Your task to perform on an android device: clear all cookies in the chrome app Image 0: 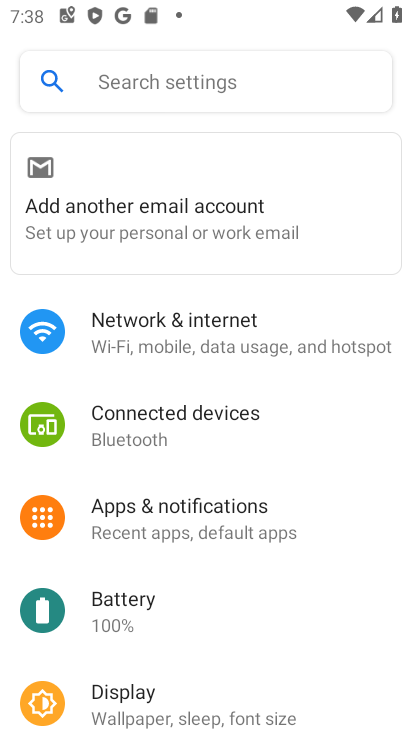
Step 0: press home button
Your task to perform on an android device: clear all cookies in the chrome app Image 1: 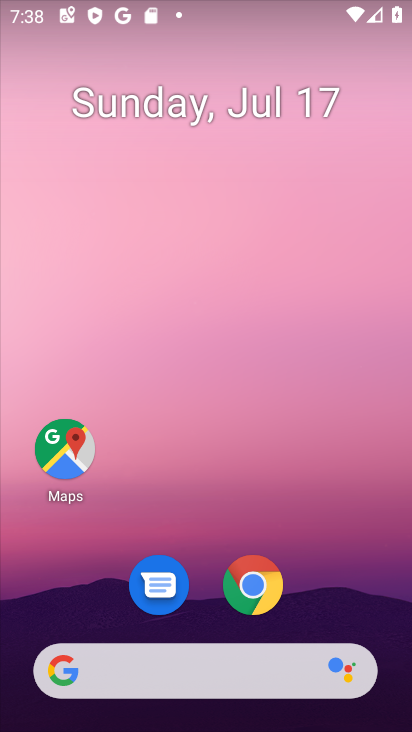
Step 1: click (255, 600)
Your task to perform on an android device: clear all cookies in the chrome app Image 2: 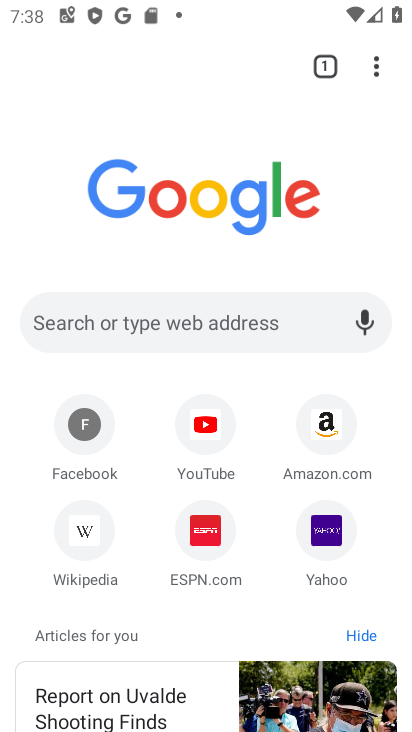
Step 2: click (374, 65)
Your task to perform on an android device: clear all cookies in the chrome app Image 3: 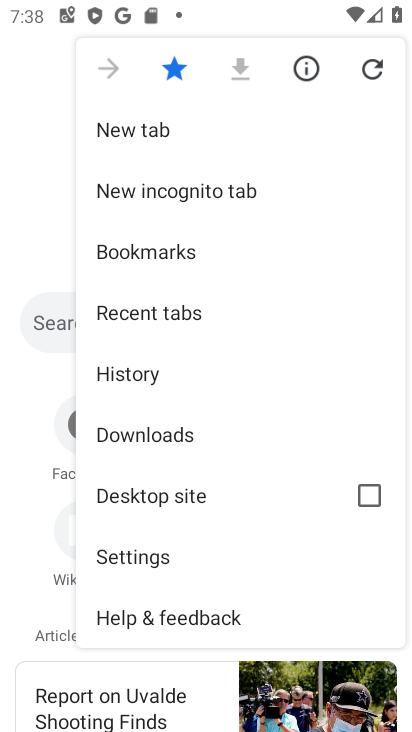
Step 3: click (137, 360)
Your task to perform on an android device: clear all cookies in the chrome app Image 4: 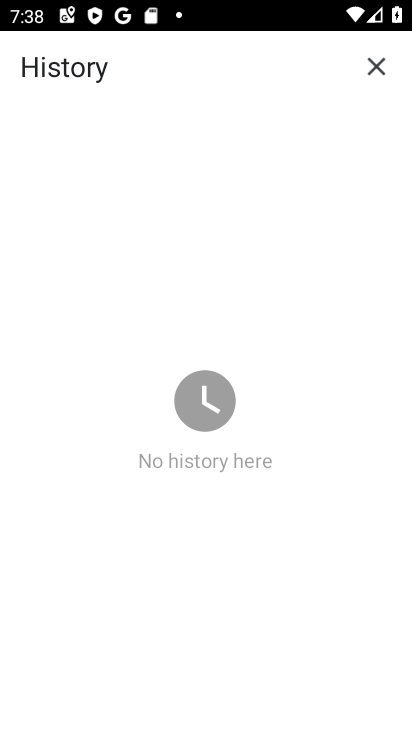
Step 4: click (373, 54)
Your task to perform on an android device: clear all cookies in the chrome app Image 5: 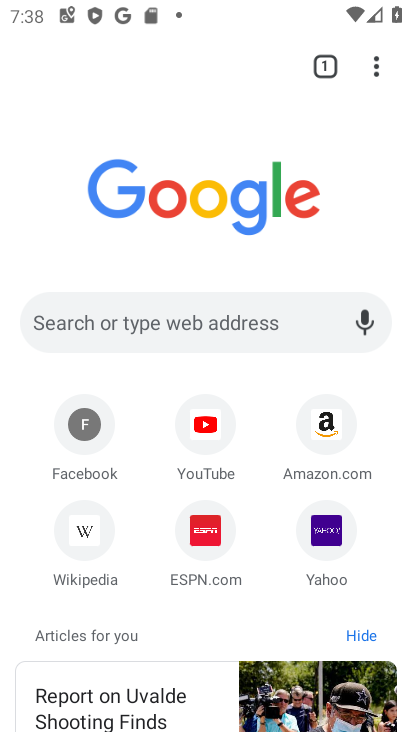
Step 5: click (381, 73)
Your task to perform on an android device: clear all cookies in the chrome app Image 6: 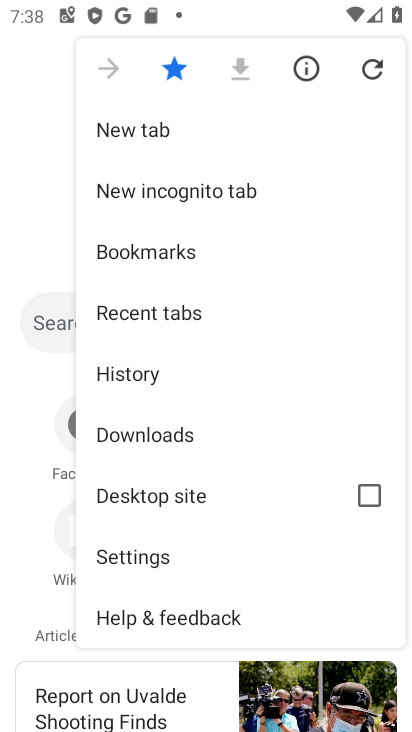
Step 6: click (168, 558)
Your task to perform on an android device: clear all cookies in the chrome app Image 7: 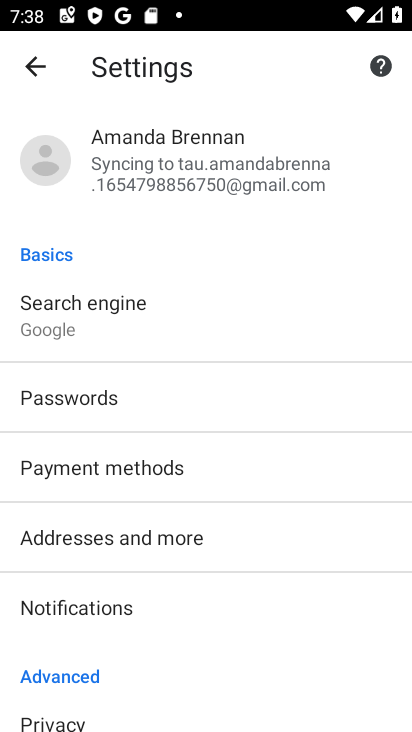
Step 7: drag from (205, 642) to (266, 355)
Your task to perform on an android device: clear all cookies in the chrome app Image 8: 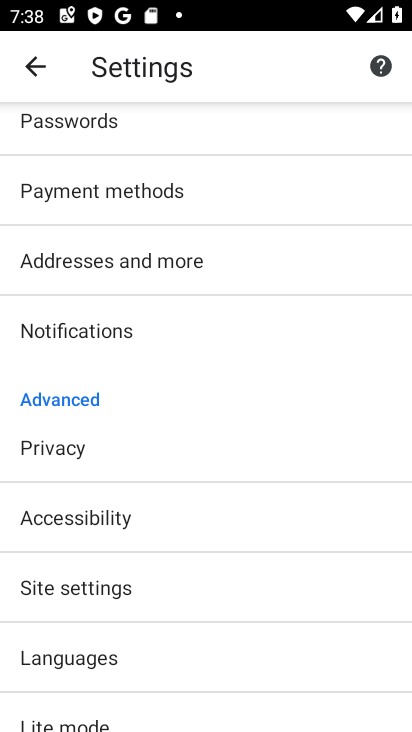
Step 8: click (158, 465)
Your task to perform on an android device: clear all cookies in the chrome app Image 9: 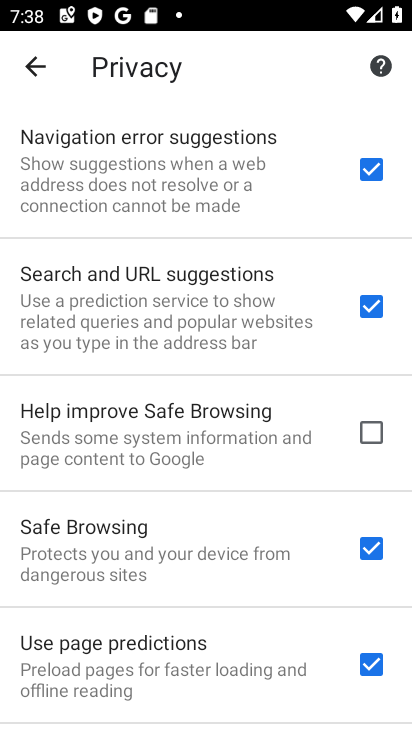
Step 9: drag from (222, 656) to (245, 246)
Your task to perform on an android device: clear all cookies in the chrome app Image 10: 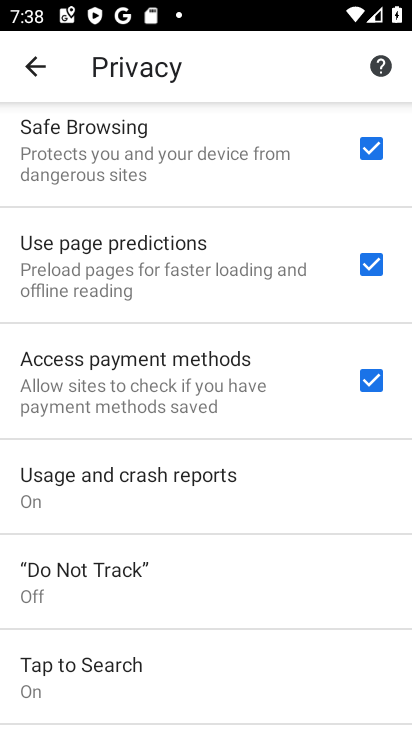
Step 10: drag from (196, 590) to (210, 231)
Your task to perform on an android device: clear all cookies in the chrome app Image 11: 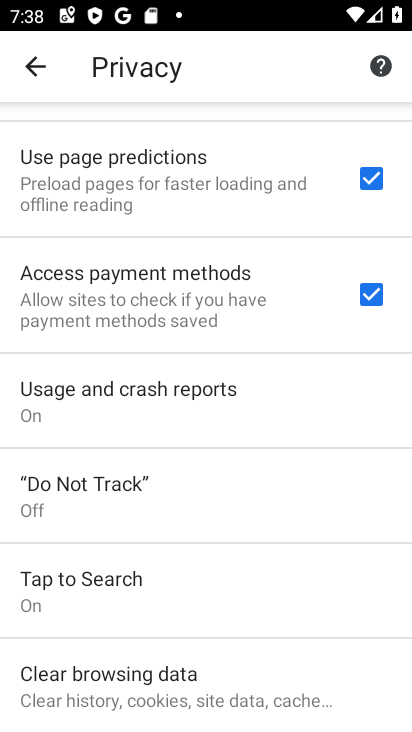
Step 11: click (152, 689)
Your task to perform on an android device: clear all cookies in the chrome app Image 12: 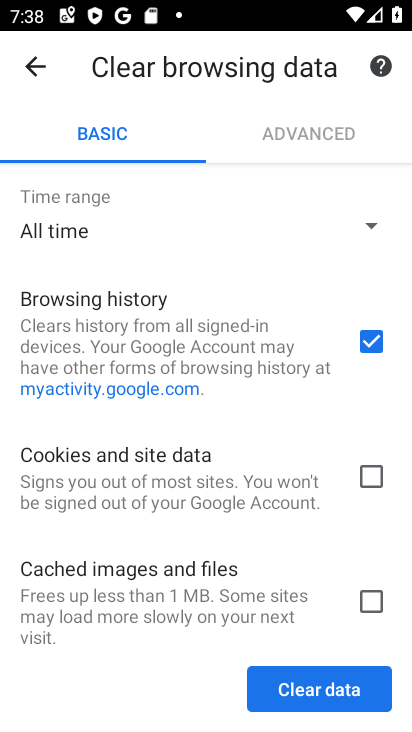
Step 12: click (374, 342)
Your task to perform on an android device: clear all cookies in the chrome app Image 13: 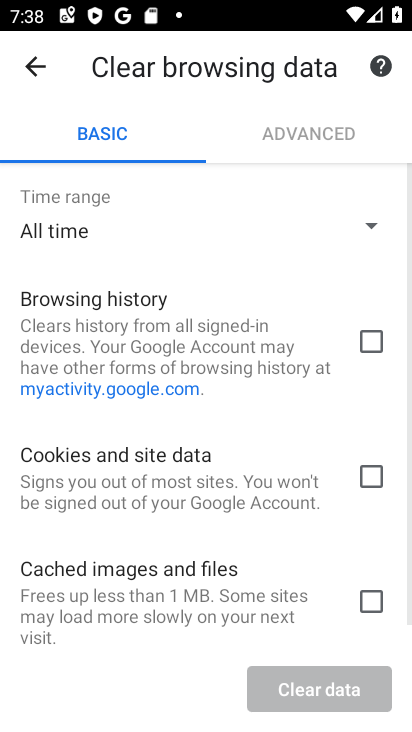
Step 13: click (372, 470)
Your task to perform on an android device: clear all cookies in the chrome app Image 14: 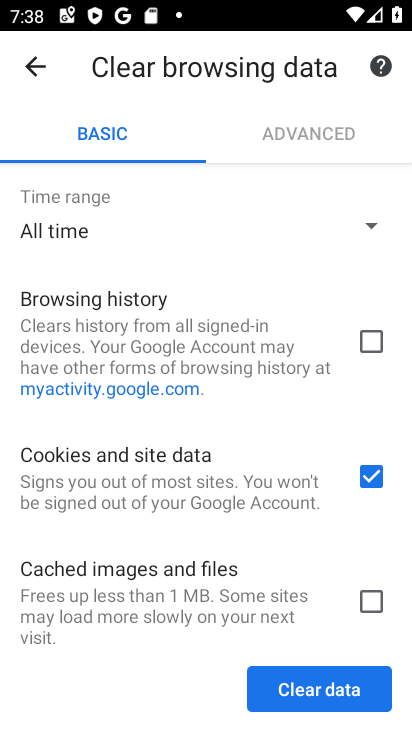
Step 14: click (337, 688)
Your task to perform on an android device: clear all cookies in the chrome app Image 15: 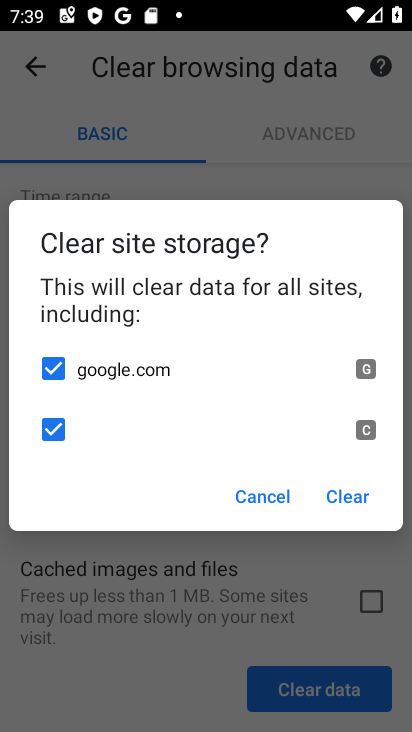
Step 15: click (349, 495)
Your task to perform on an android device: clear all cookies in the chrome app Image 16: 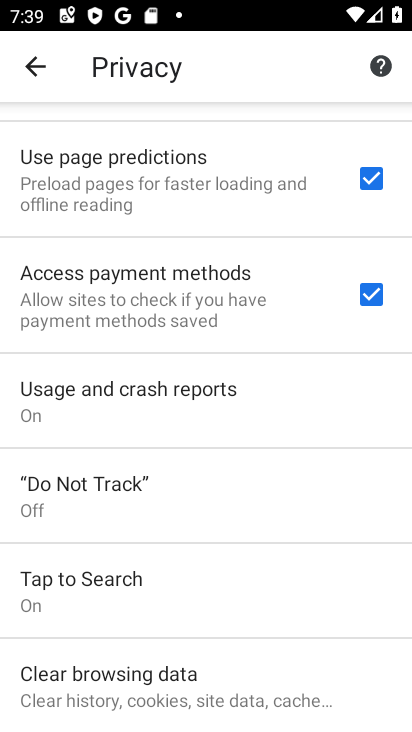
Step 16: task complete